Your task to perform on an android device: turn notification dots off Image 0: 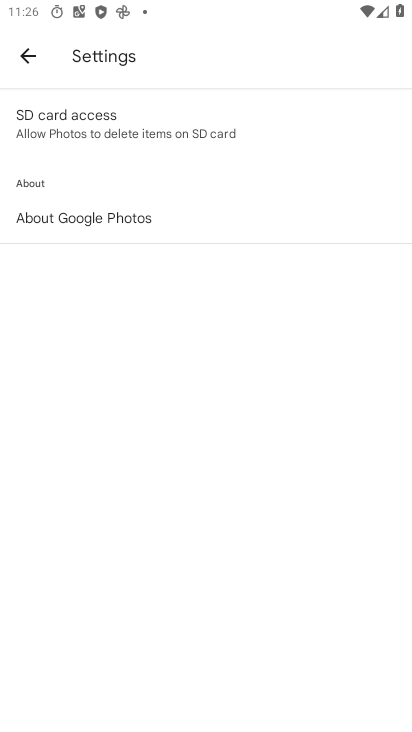
Step 0: press home button
Your task to perform on an android device: turn notification dots off Image 1: 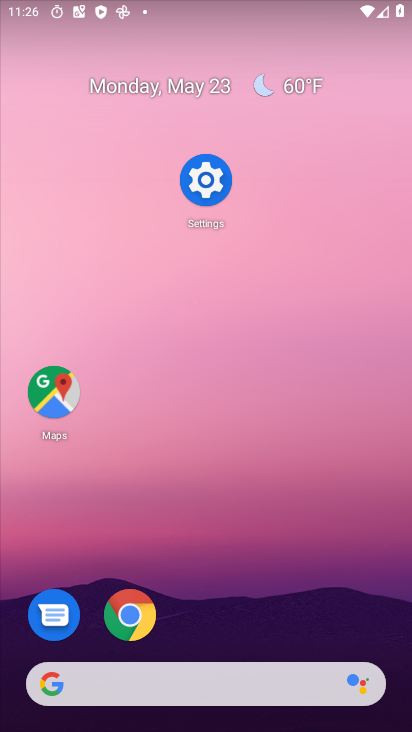
Step 1: click (206, 181)
Your task to perform on an android device: turn notification dots off Image 2: 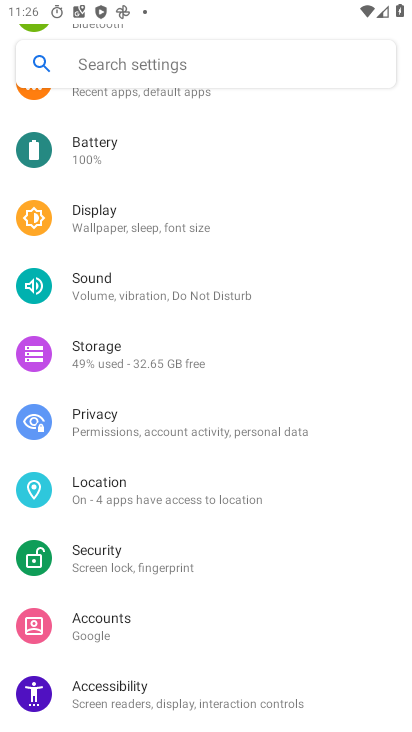
Step 2: drag from (134, 176) to (199, 453)
Your task to perform on an android device: turn notification dots off Image 3: 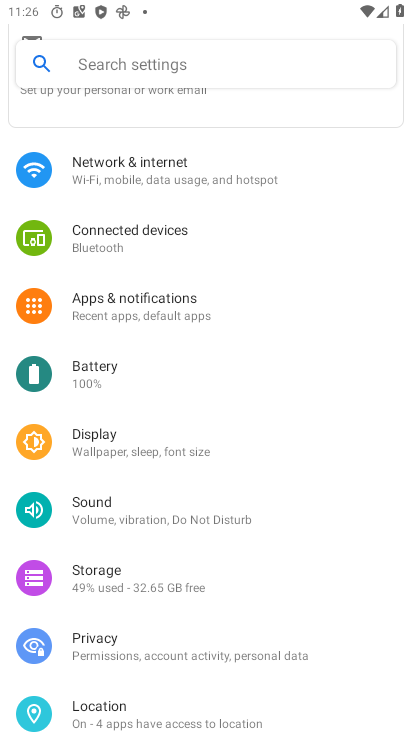
Step 3: click (118, 302)
Your task to perform on an android device: turn notification dots off Image 4: 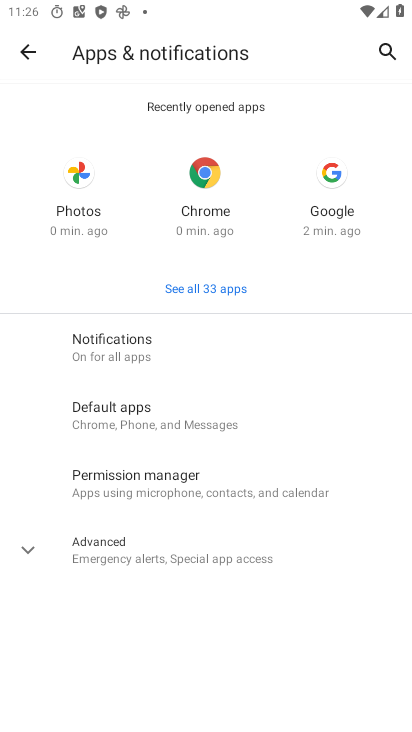
Step 4: click (146, 357)
Your task to perform on an android device: turn notification dots off Image 5: 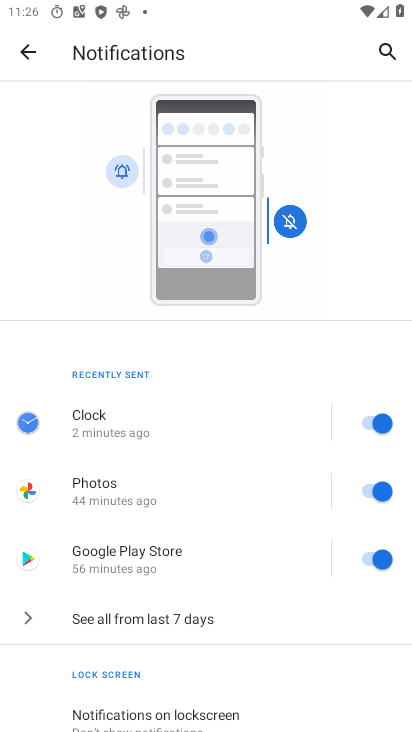
Step 5: drag from (264, 673) to (309, 186)
Your task to perform on an android device: turn notification dots off Image 6: 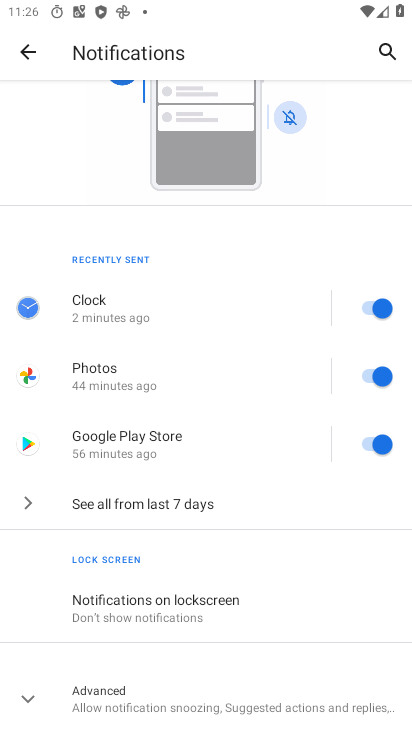
Step 6: drag from (203, 645) to (239, 202)
Your task to perform on an android device: turn notification dots off Image 7: 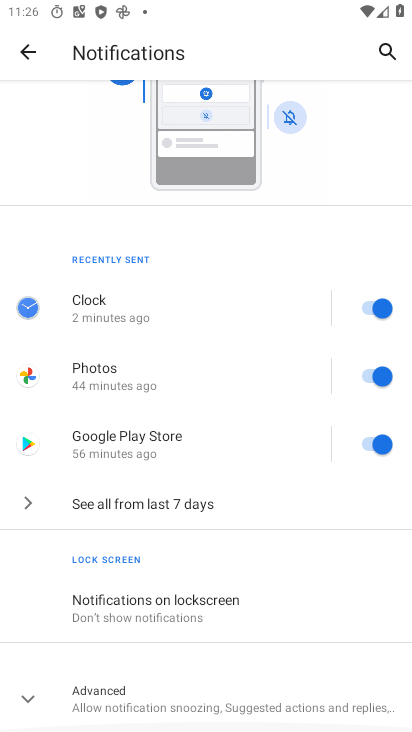
Step 7: click (112, 695)
Your task to perform on an android device: turn notification dots off Image 8: 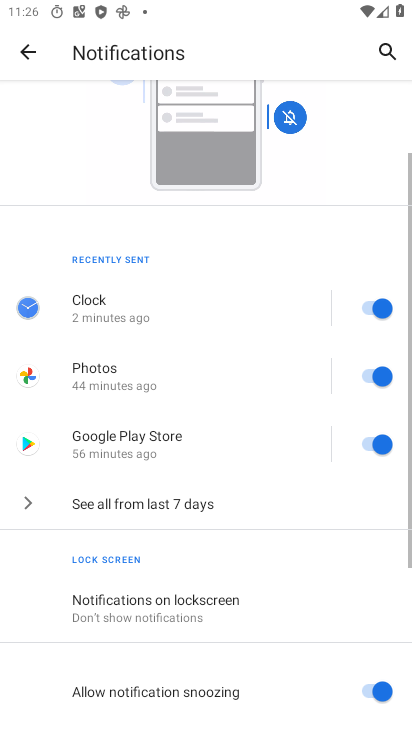
Step 8: task complete